Your task to perform on an android device: turn on bluetooth scan Image 0: 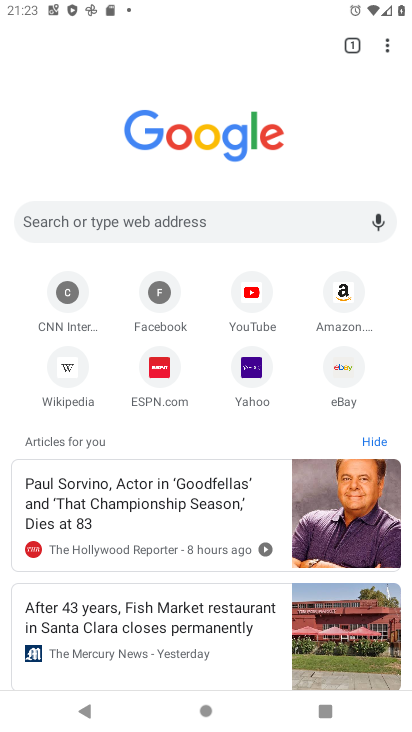
Step 0: press home button
Your task to perform on an android device: turn on bluetooth scan Image 1: 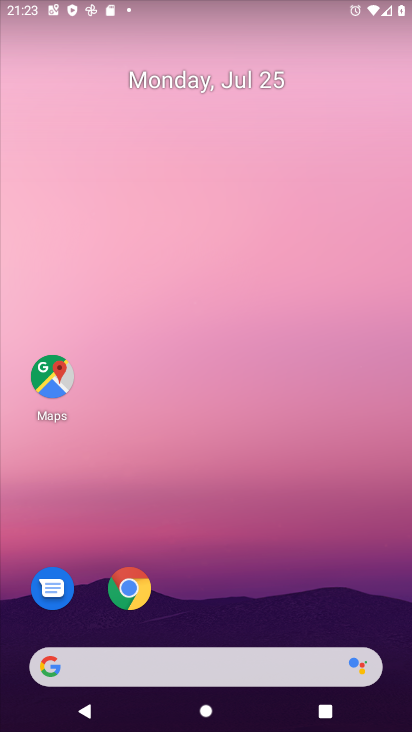
Step 1: drag from (154, 650) to (219, 149)
Your task to perform on an android device: turn on bluetooth scan Image 2: 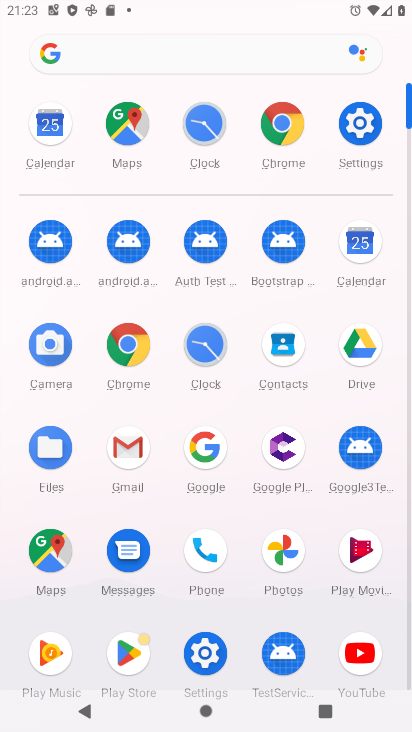
Step 2: click (354, 118)
Your task to perform on an android device: turn on bluetooth scan Image 3: 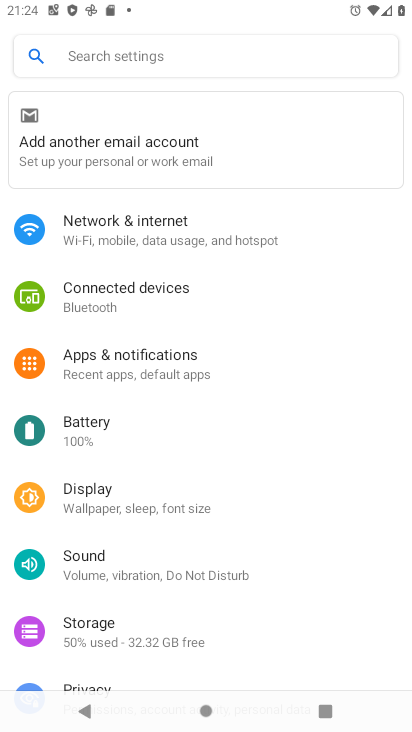
Step 3: drag from (103, 624) to (104, 261)
Your task to perform on an android device: turn on bluetooth scan Image 4: 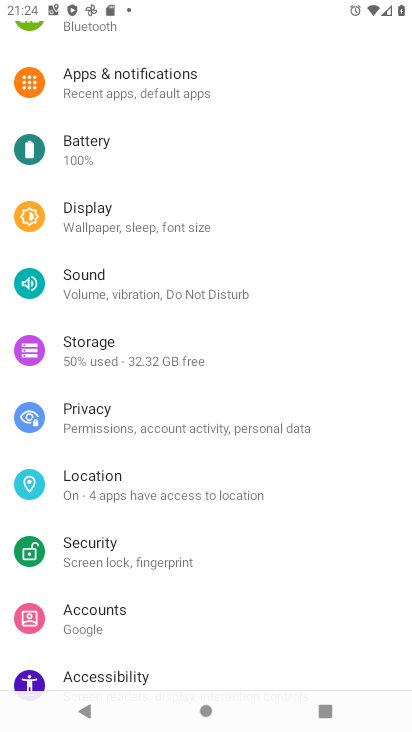
Step 4: click (96, 489)
Your task to perform on an android device: turn on bluetooth scan Image 5: 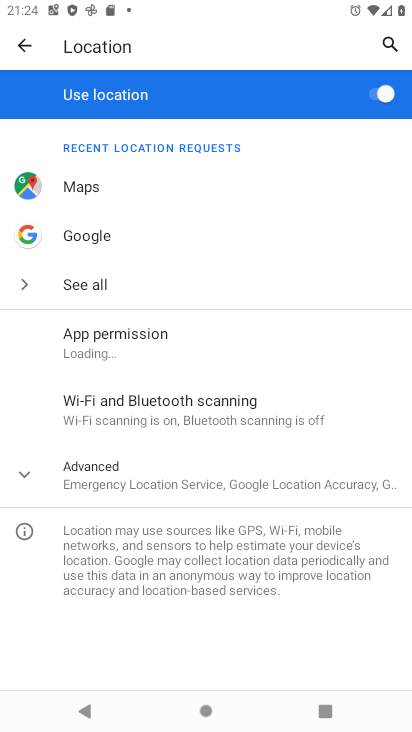
Step 5: click (95, 471)
Your task to perform on an android device: turn on bluetooth scan Image 6: 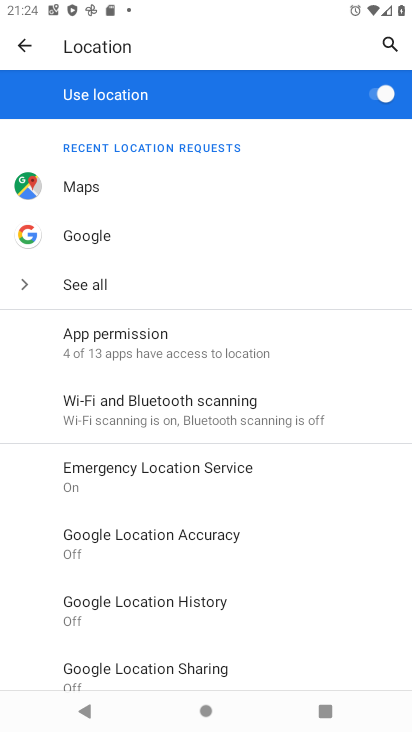
Step 6: click (114, 411)
Your task to perform on an android device: turn on bluetooth scan Image 7: 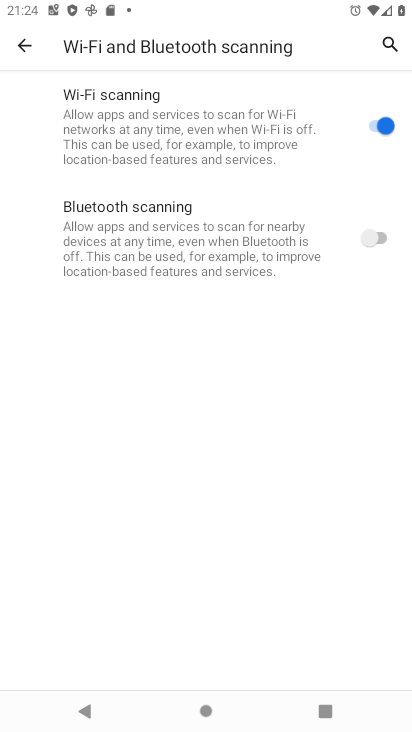
Step 7: click (378, 237)
Your task to perform on an android device: turn on bluetooth scan Image 8: 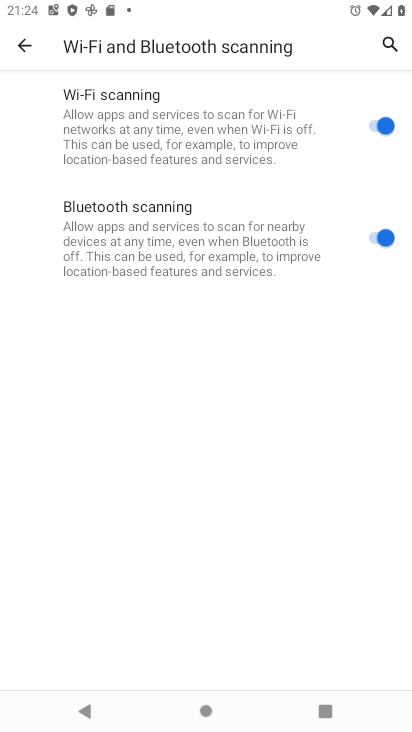
Step 8: task complete